Your task to perform on an android device: see tabs open on other devices in the chrome app Image 0: 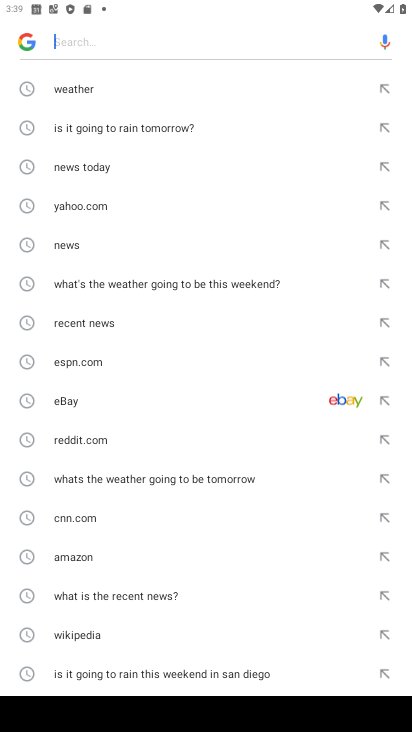
Step 0: press home button
Your task to perform on an android device: see tabs open on other devices in the chrome app Image 1: 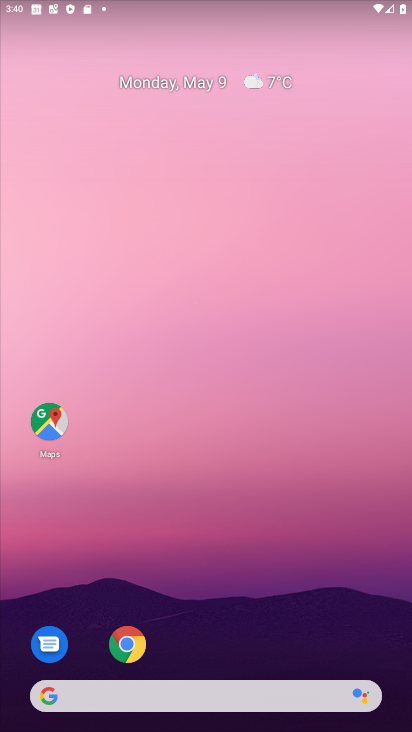
Step 1: drag from (334, 682) to (191, 93)
Your task to perform on an android device: see tabs open on other devices in the chrome app Image 2: 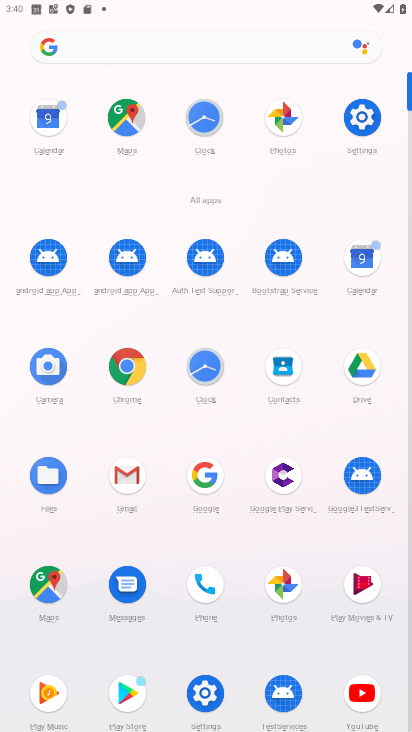
Step 2: click (116, 370)
Your task to perform on an android device: see tabs open on other devices in the chrome app Image 3: 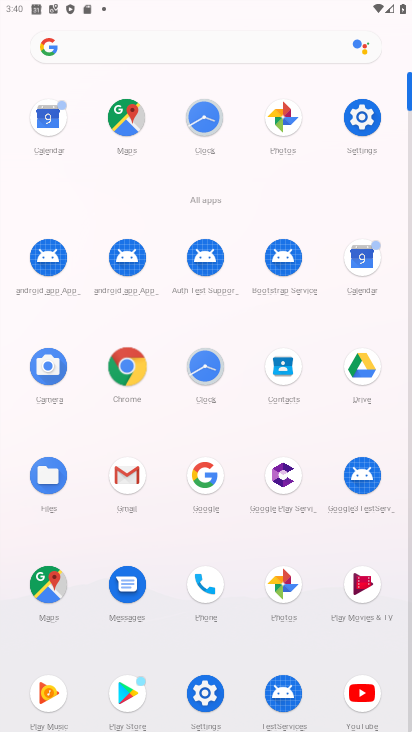
Step 3: click (117, 370)
Your task to perform on an android device: see tabs open on other devices in the chrome app Image 4: 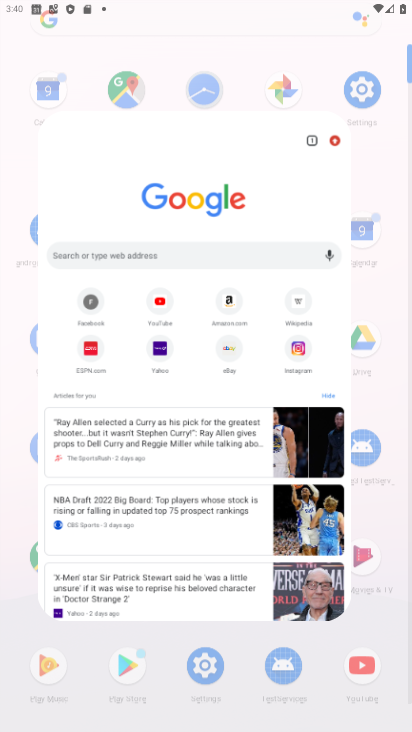
Step 4: click (118, 371)
Your task to perform on an android device: see tabs open on other devices in the chrome app Image 5: 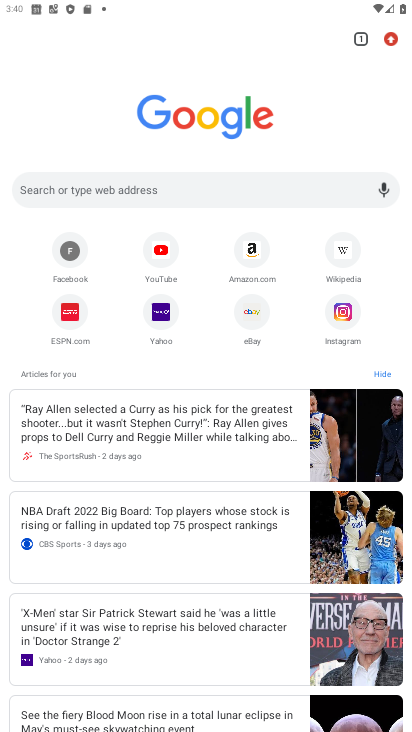
Step 5: drag from (387, 41) to (394, 430)
Your task to perform on an android device: see tabs open on other devices in the chrome app Image 6: 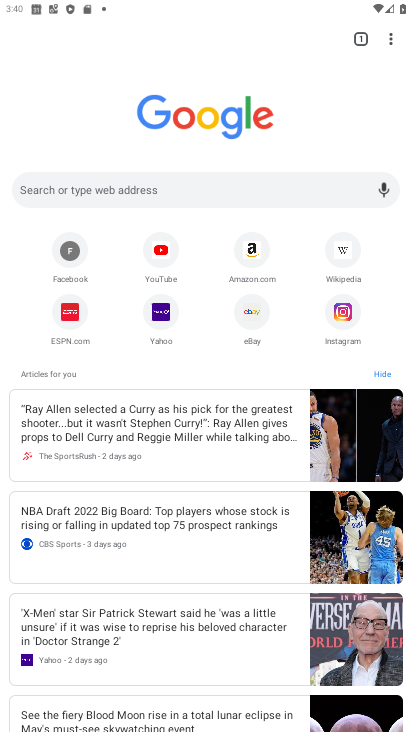
Step 6: drag from (391, 39) to (260, 225)
Your task to perform on an android device: see tabs open on other devices in the chrome app Image 7: 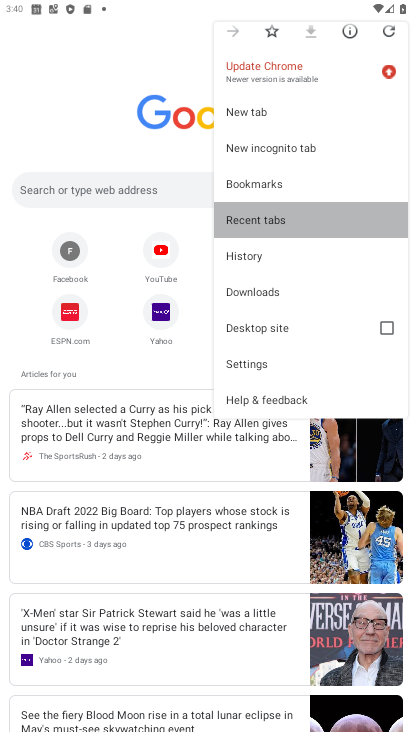
Step 7: click (259, 224)
Your task to perform on an android device: see tabs open on other devices in the chrome app Image 8: 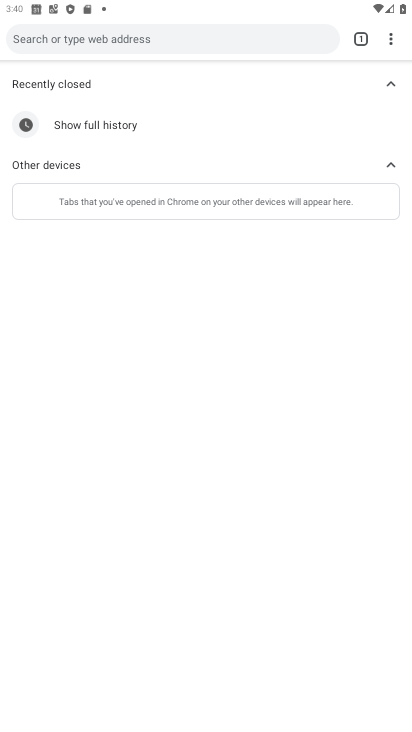
Step 8: click (260, 217)
Your task to perform on an android device: see tabs open on other devices in the chrome app Image 9: 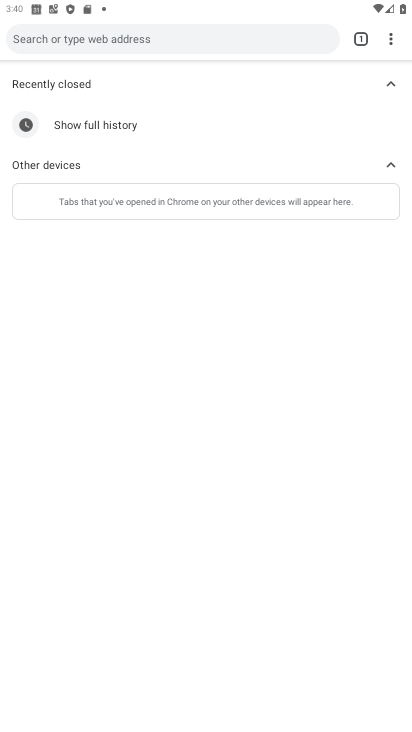
Step 9: task complete